Your task to perform on an android device: turn off improve location accuracy Image 0: 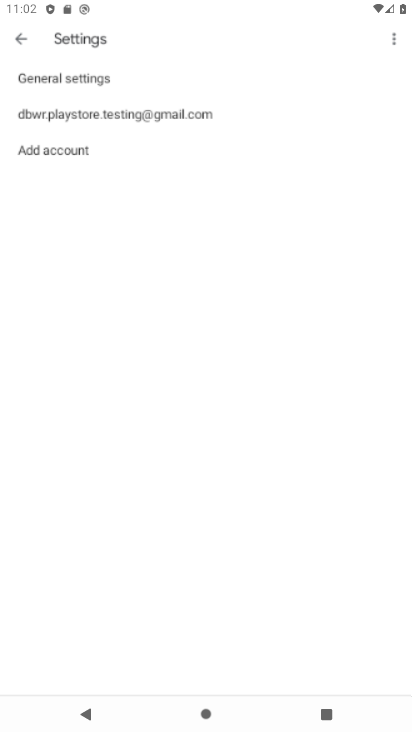
Step 0: drag from (266, 582) to (299, 51)
Your task to perform on an android device: turn off improve location accuracy Image 1: 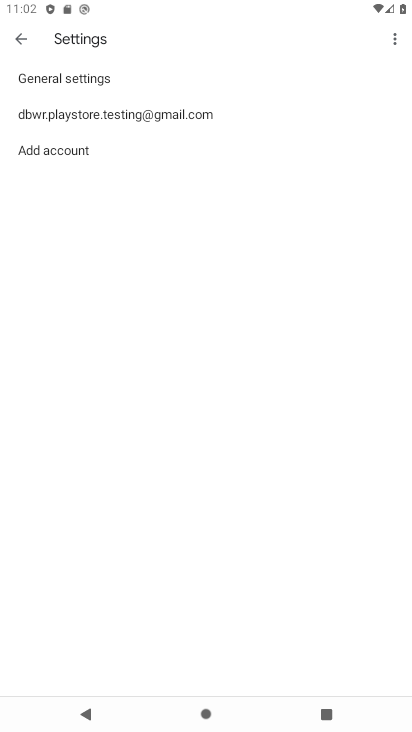
Step 1: press home button
Your task to perform on an android device: turn off improve location accuracy Image 2: 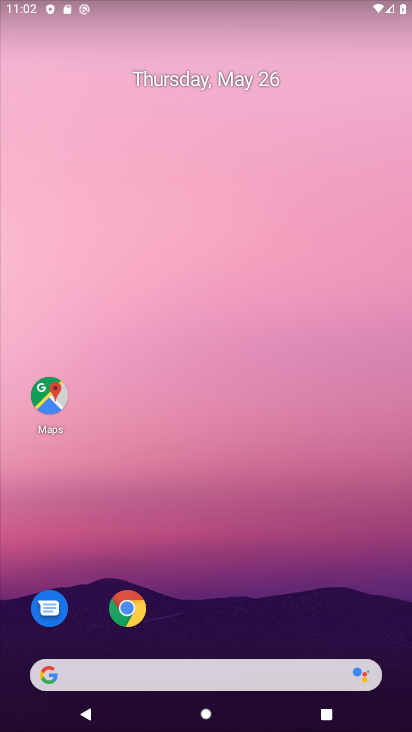
Step 2: drag from (299, 576) to (341, 120)
Your task to perform on an android device: turn off improve location accuracy Image 3: 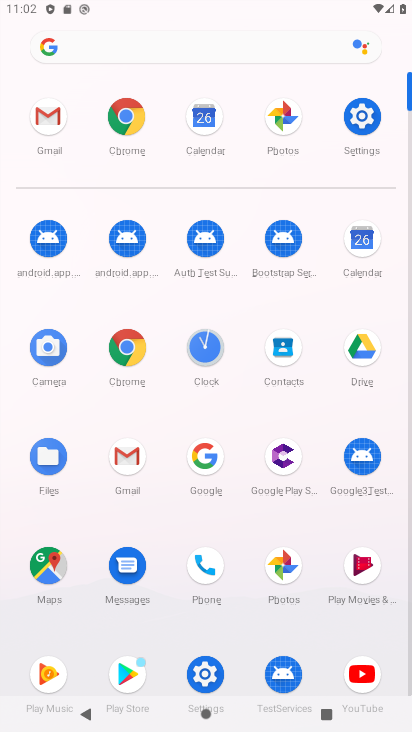
Step 3: click (351, 112)
Your task to perform on an android device: turn off improve location accuracy Image 4: 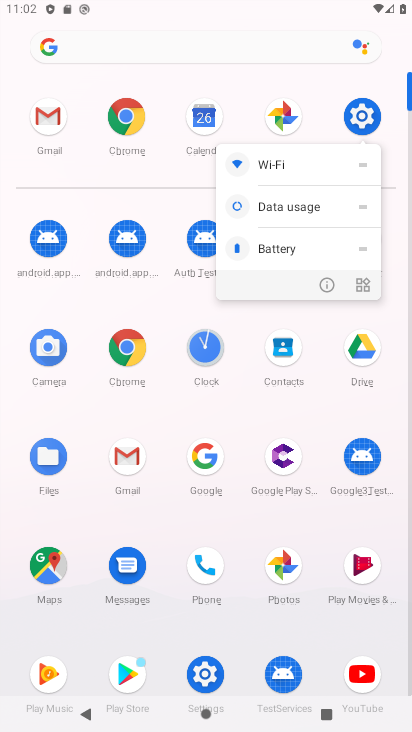
Step 4: click (354, 111)
Your task to perform on an android device: turn off improve location accuracy Image 5: 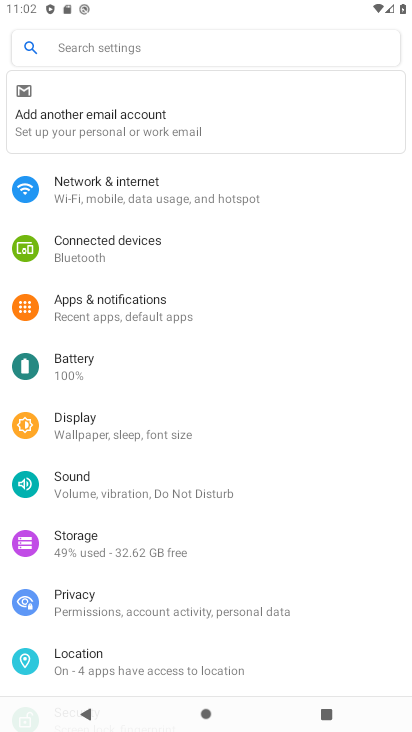
Step 5: drag from (217, 647) to (285, 298)
Your task to perform on an android device: turn off improve location accuracy Image 6: 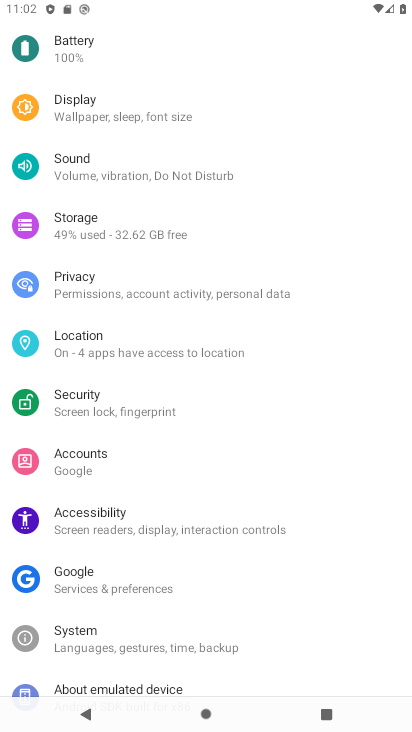
Step 6: click (123, 348)
Your task to perform on an android device: turn off improve location accuracy Image 7: 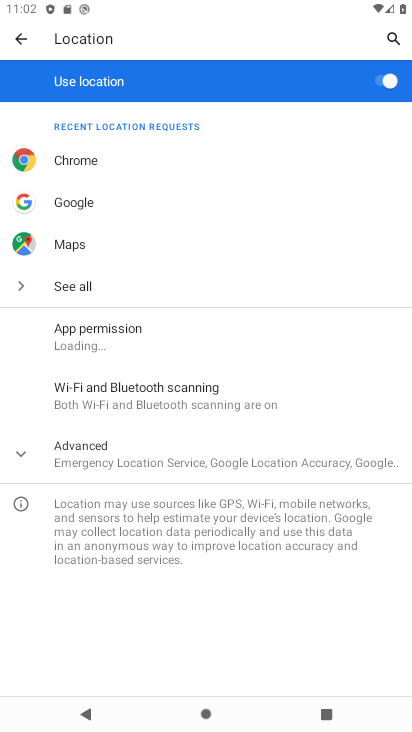
Step 7: click (130, 442)
Your task to perform on an android device: turn off improve location accuracy Image 8: 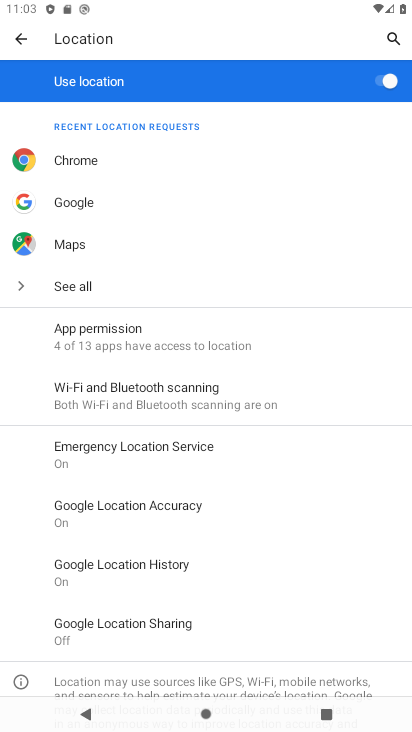
Step 8: click (157, 503)
Your task to perform on an android device: turn off improve location accuracy Image 9: 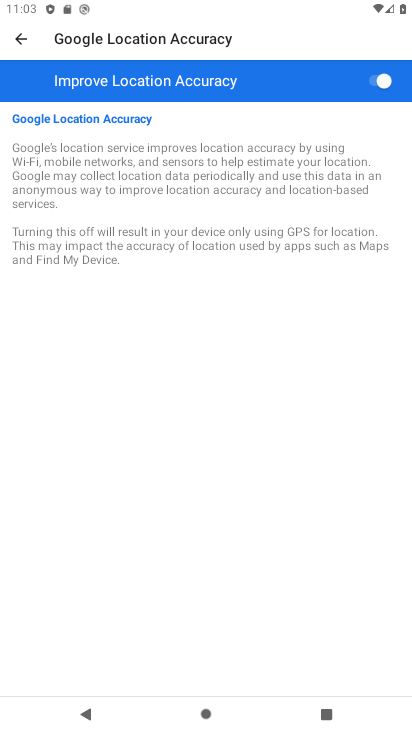
Step 9: click (374, 46)
Your task to perform on an android device: turn off improve location accuracy Image 10: 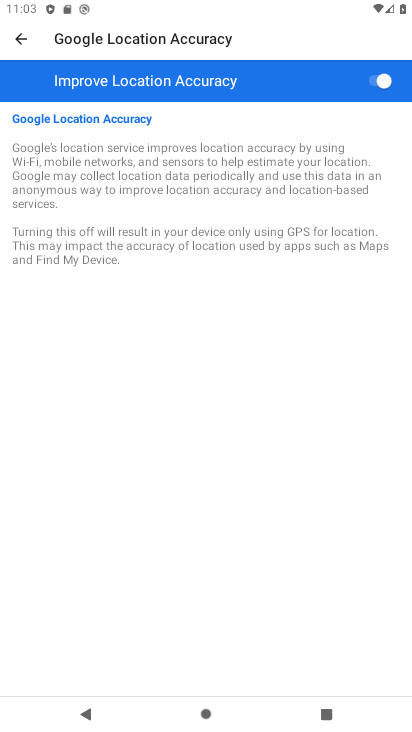
Step 10: click (374, 73)
Your task to perform on an android device: turn off improve location accuracy Image 11: 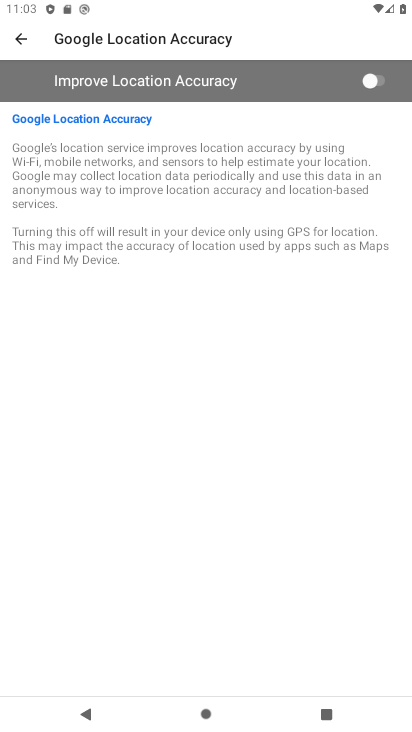
Step 11: task complete